Your task to perform on an android device: turn vacation reply on in the gmail app Image 0: 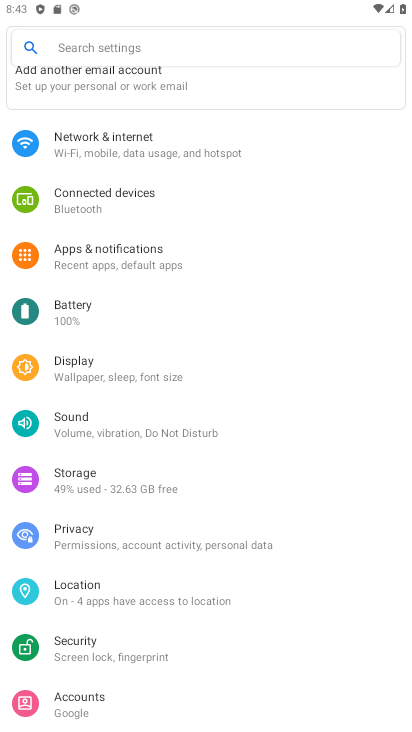
Step 0: press back button
Your task to perform on an android device: turn vacation reply on in the gmail app Image 1: 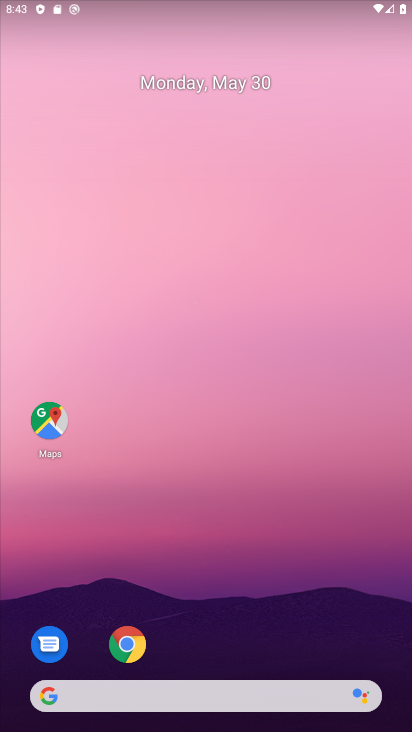
Step 1: drag from (208, 597) to (237, 122)
Your task to perform on an android device: turn vacation reply on in the gmail app Image 2: 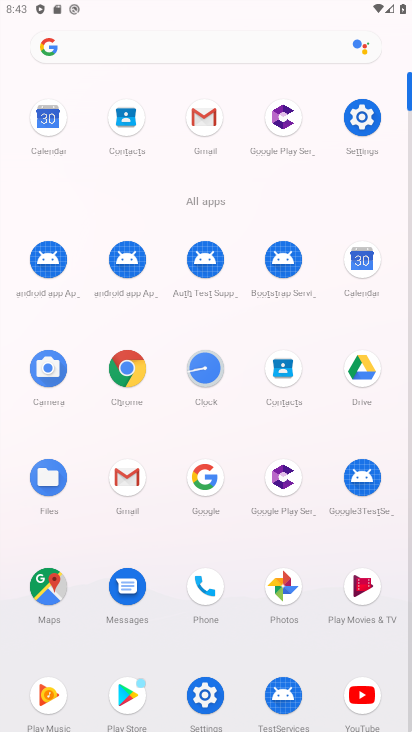
Step 2: click (198, 117)
Your task to perform on an android device: turn vacation reply on in the gmail app Image 3: 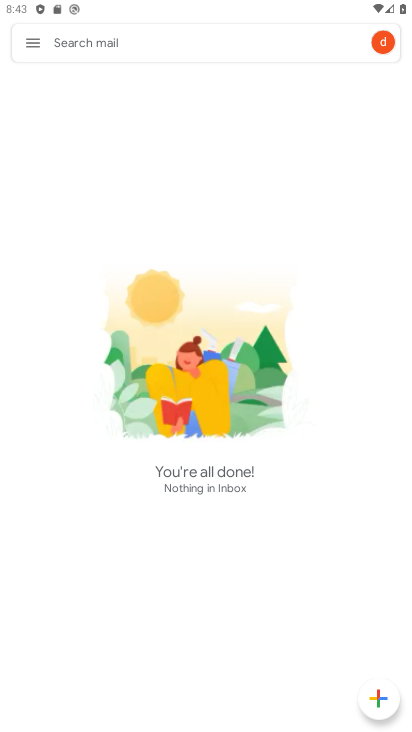
Step 3: click (31, 40)
Your task to perform on an android device: turn vacation reply on in the gmail app Image 4: 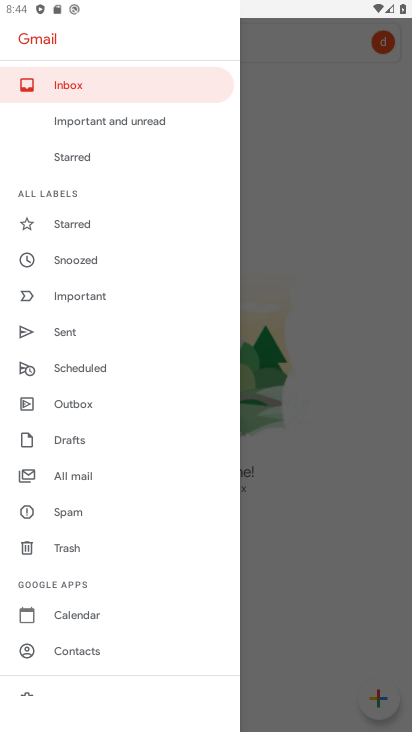
Step 4: drag from (99, 553) to (132, 54)
Your task to perform on an android device: turn vacation reply on in the gmail app Image 5: 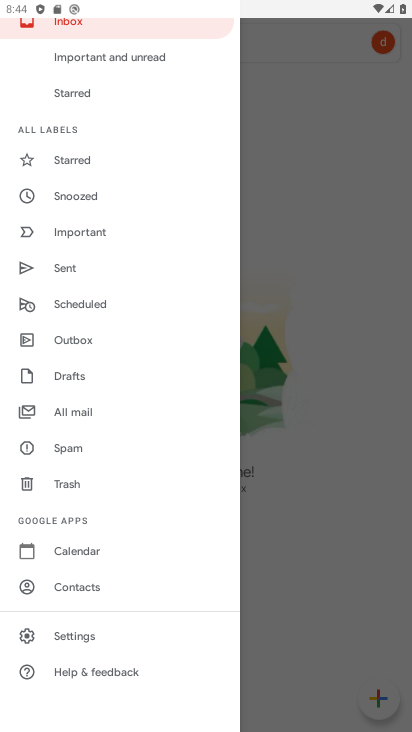
Step 5: click (67, 634)
Your task to perform on an android device: turn vacation reply on in the gmail app Image 6: 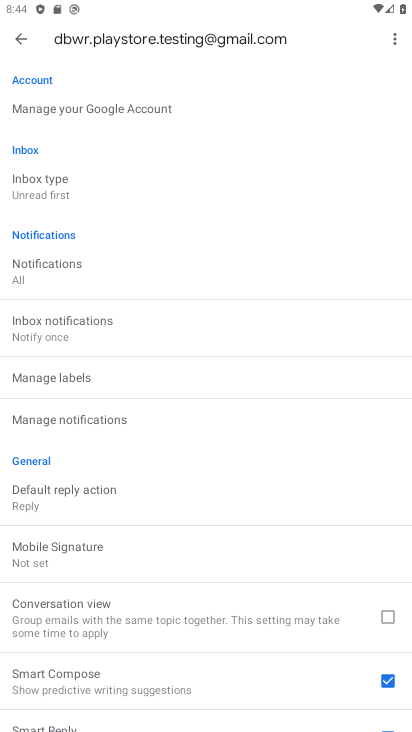
Step 6: drag from (105, 664) to (185, 149)
Your task to perform on an android device: turn vacation reply on in the gmail app Image 7: 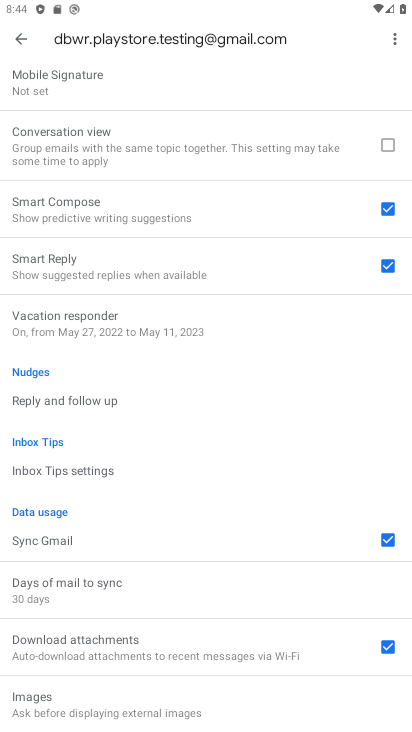
Step 7: click (79, 328)
Your task to perform on an android device: turn vacation reply on in the gmail app Image 8: 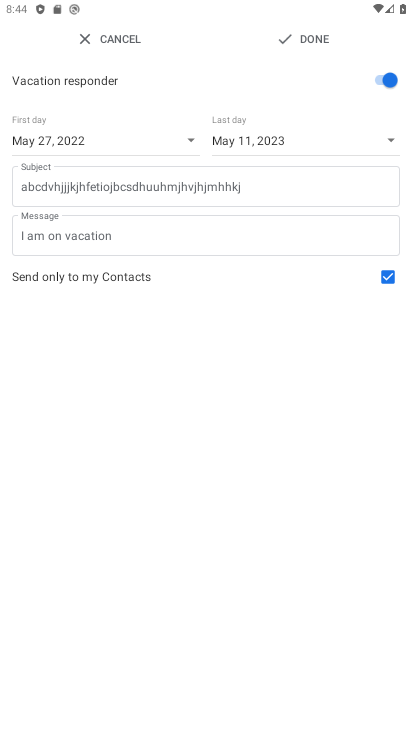
Step 8: task complete